Your task to perform on an android device: toggle translation in the chrome app Image 0: 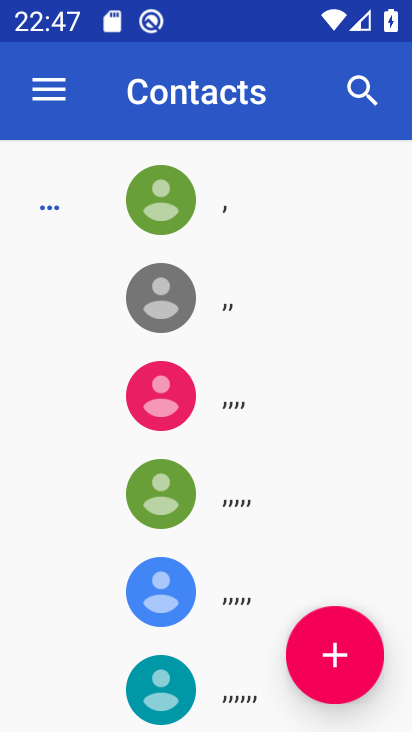
Step 0: press home button
Your task to perform on an android device: toggle translation in the chrome app Image 1: 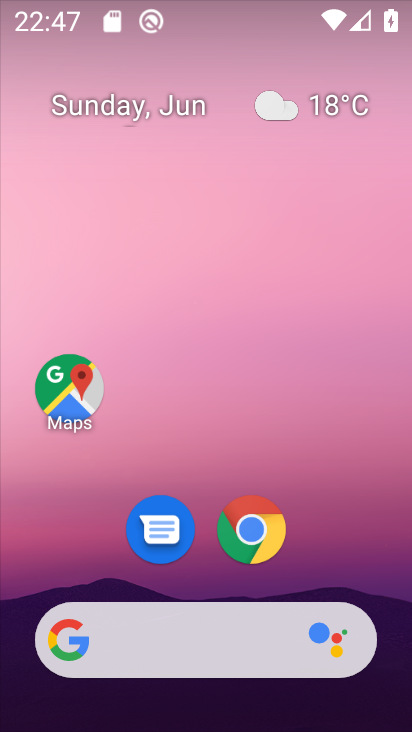
Step 1: click (256, 546)
Your task to perform on an android device: toggle translation in the chrome app Image 2: 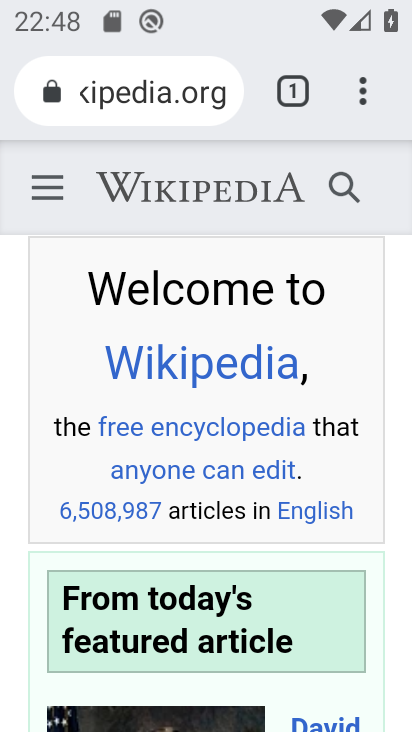
Step 2: click (374, 113)
Your task to perform on an android device: toggle translation in the chrome app Image 3: 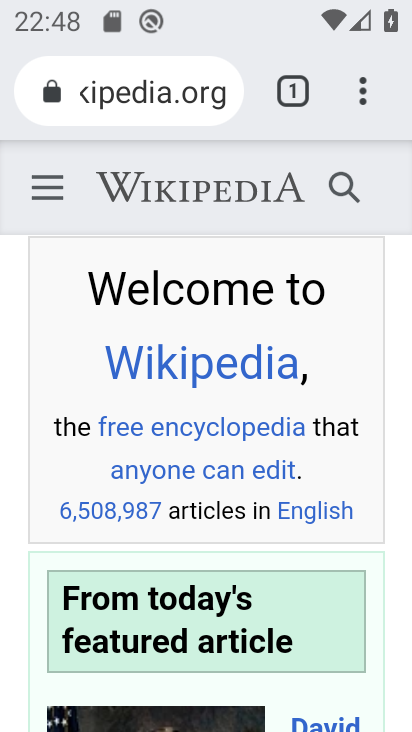
Step 3: click (360, 105)
Your task to perform on an android device: toggle translation in the chrome app Image 4: 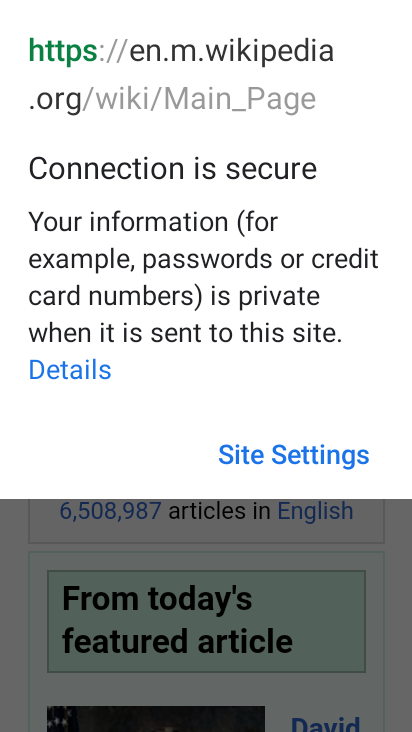
Step 4: press back button
Your task to perform on an android device: toggle translation in the chrome app Image 5: 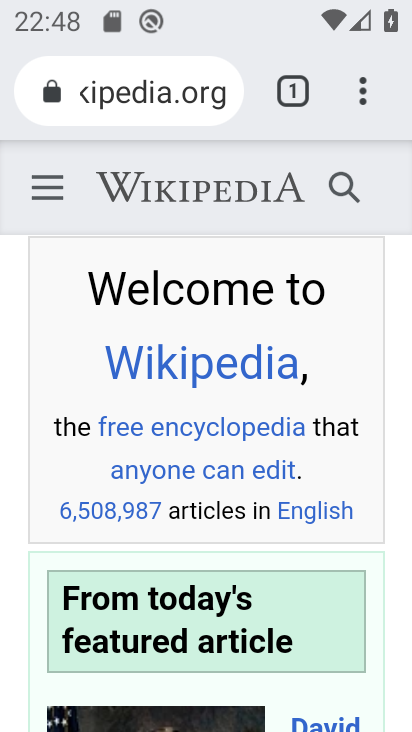
Step 5: drag from (388, 79) to (268, 563)
Your task to perform on an android device: toggle translation in the chrome app Image 6: 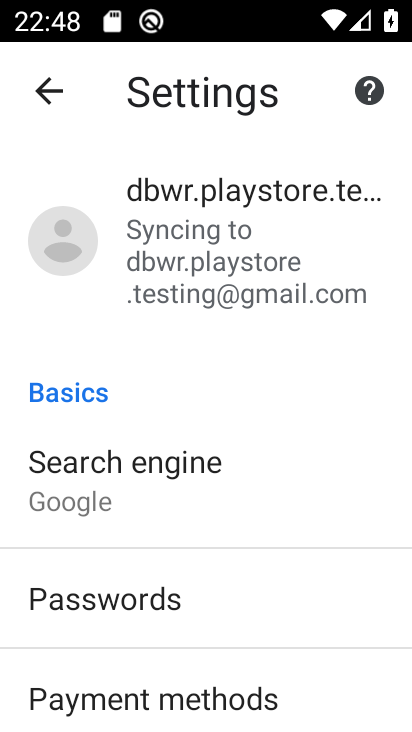
Step 6: drag from (253, 634) to (393, 151)
Your task to perform on an android device: toggle translation in the chrome app Image 7: 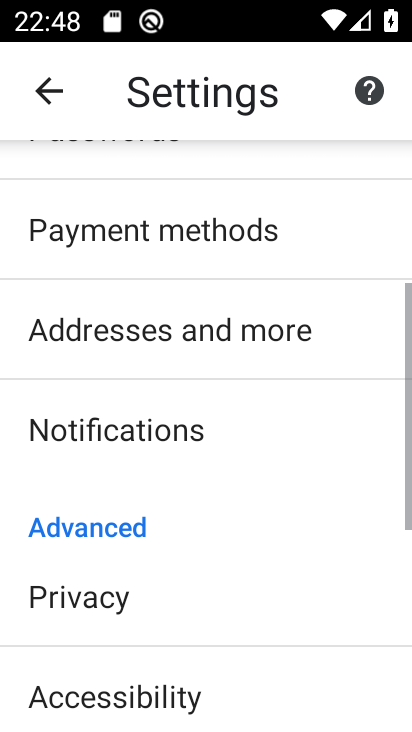
Step 7: drag from (172, 627) to (305, 267)
Your task to perform on an android device: toggle translation in the chrome app Image 8: 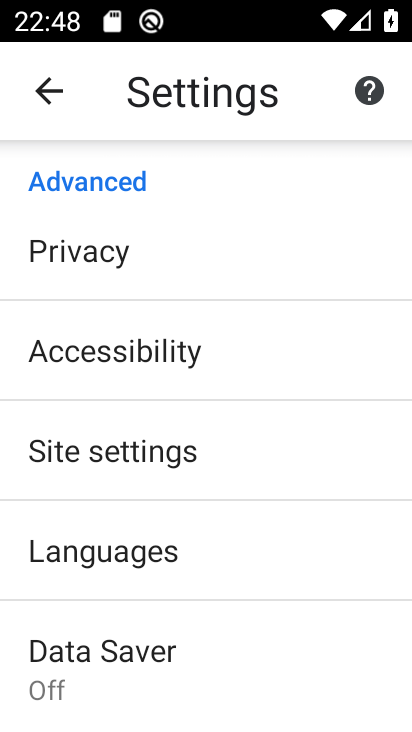
Step 8: click (192, 547)
Your task to perform on an android device: toggle translation in the chrome app Image 9: 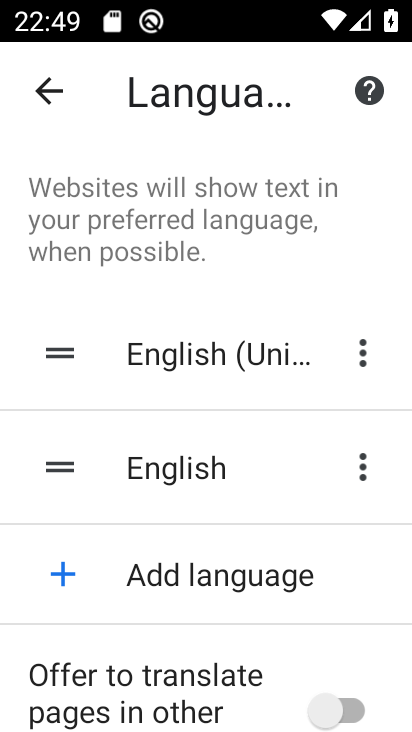
Step 9: drag from (217, 689) to (330, 410)
Your task to perform on an android device: toggle translation in the chrome app Image 10: 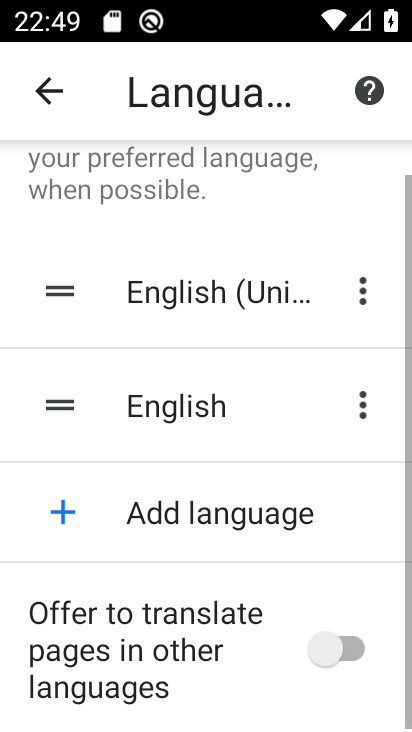
Step 10: click (360, 643)
Your task to perform on an android device: toggle translation in the chrome app Image 11: 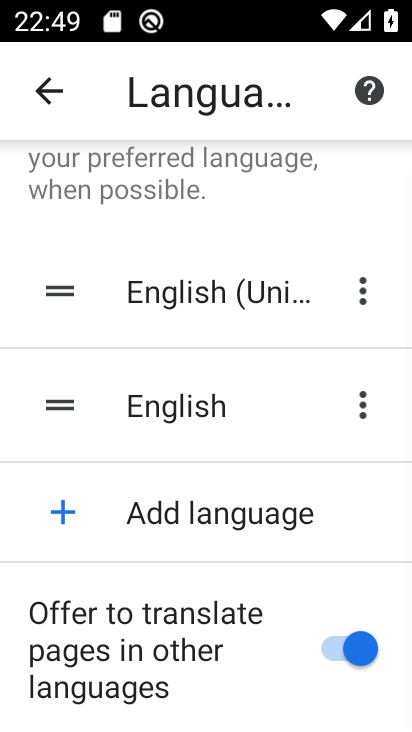
Step 11: task complete